Your task to perform on an android device: How do I get to the nearest McDonalds? Image 0: 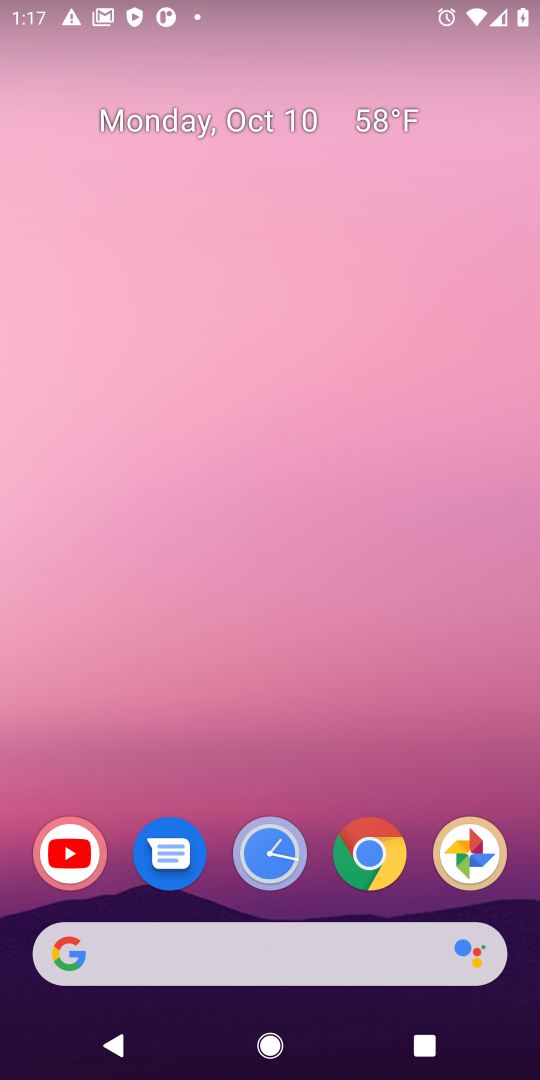
Step 0: click (357, 846)
Your task to perform on an android device: How do I get to the nearest McDonalds? Image 1: 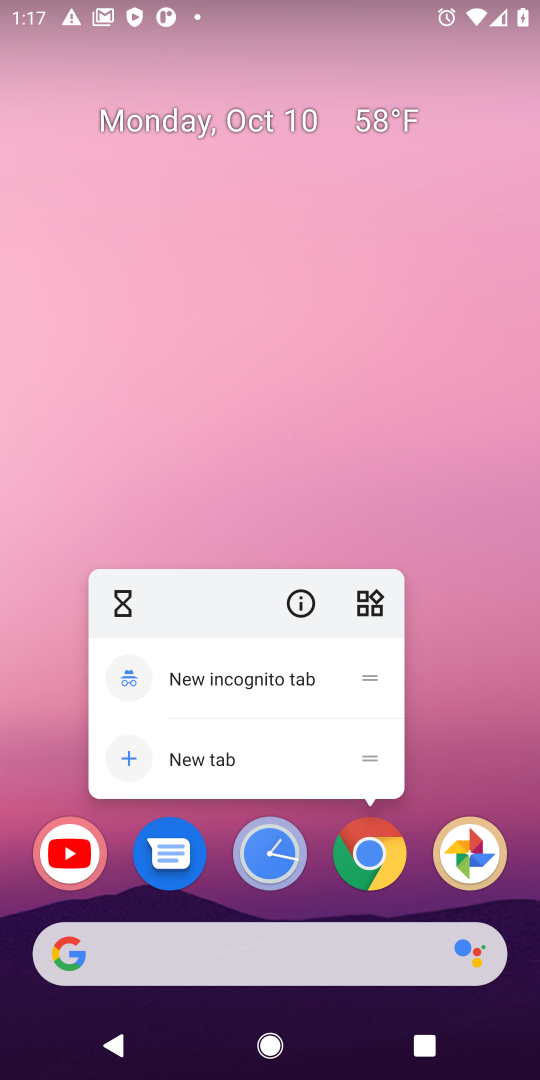
Step 1: click (389, 888)
Your task to perform on an android device: How do I get to the nearest McDonalds? Image 2: 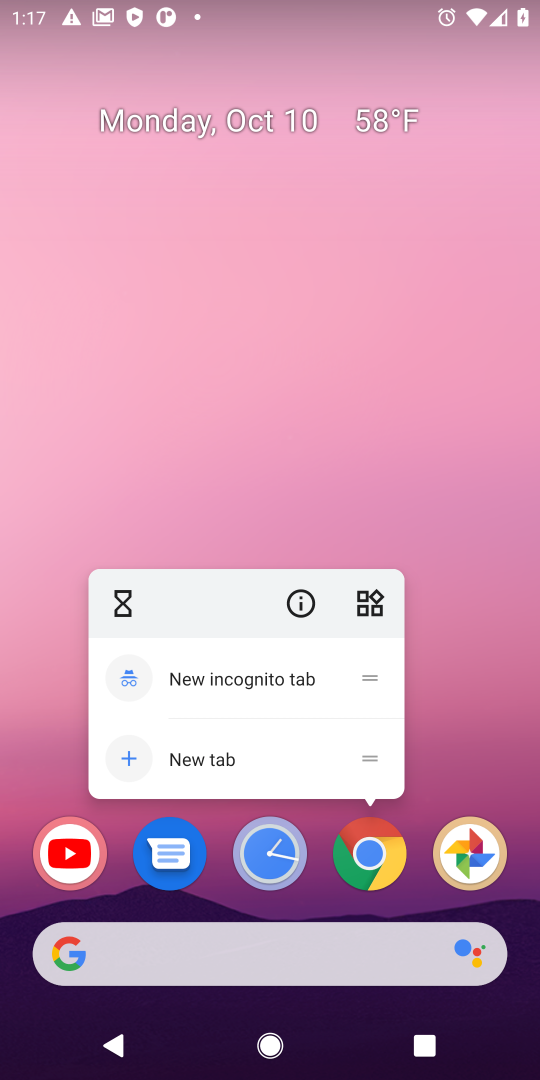
Step 2: click (388, 888)
Your task to perform on an android device: How do I get to the nearest McDonalds? Image 3: 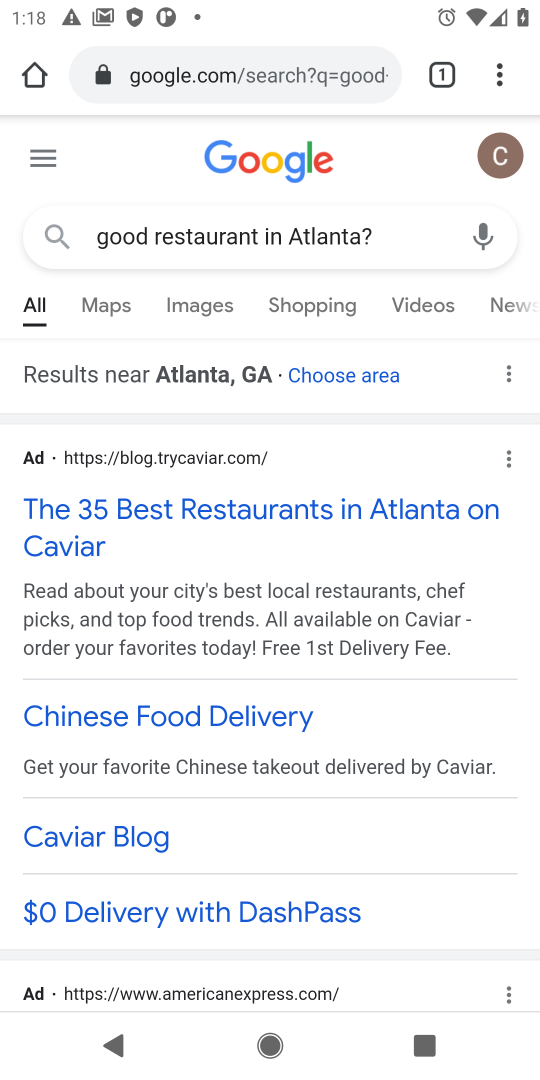
Step 3: click (405, 221)
Your task to perform on an android device: How do I get to the nearest McDonalds? Image 4: 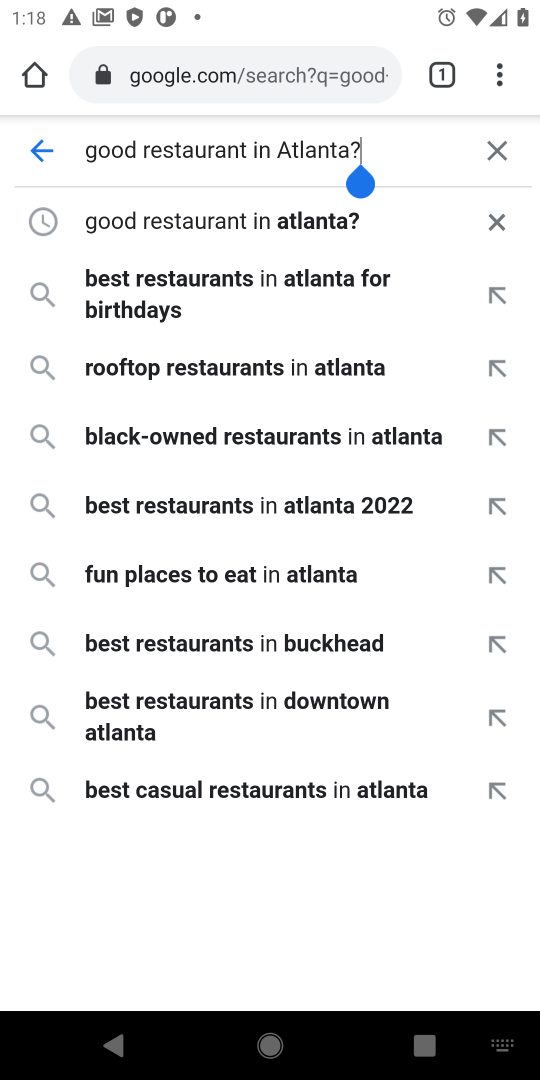
Step 4: click (496, 145)
Your task to perform on an android device: How do I get to the nearest McDonalds? Image 5: 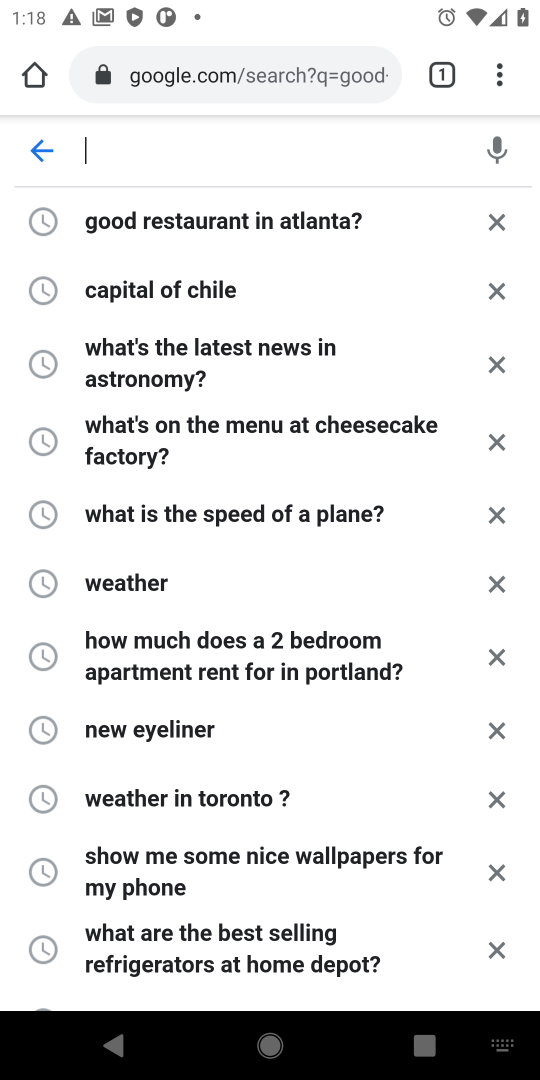
Step 5: type "How do I get to the nearest McDonalds?"
Your task to perform on an android device: How do I get to the nearest McDonalds? Image 6: 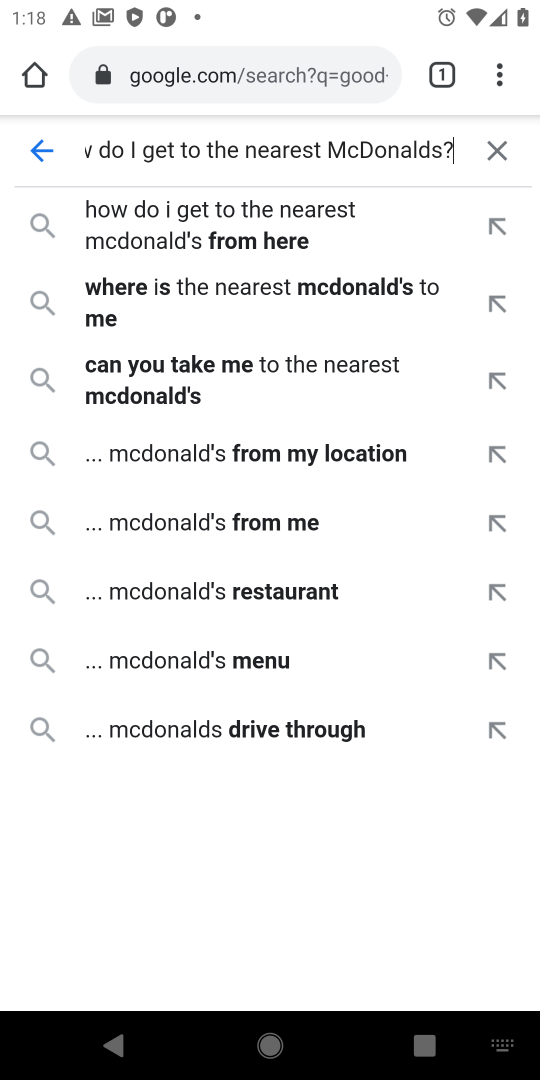
Step 6: press enter
Your task to perform on an android device: How do I get to the nearest McDonalds? Image 7: 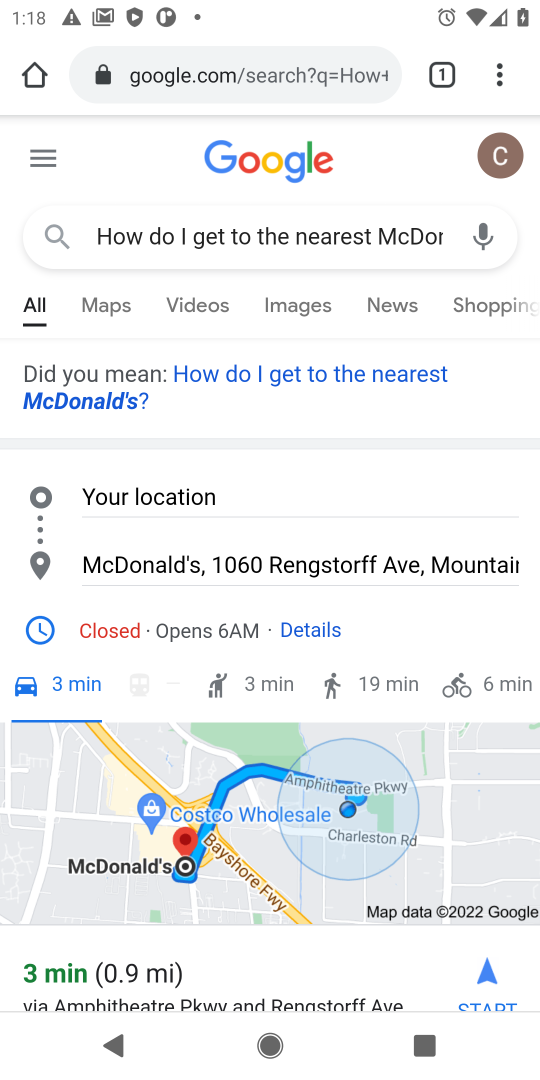
Step 7: task complete